Your task to perform on an android device: Go to internet settings Image 0: 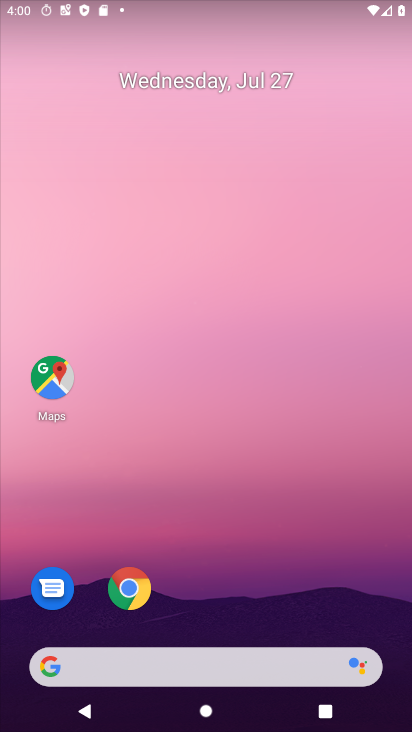
Step 0: press home button
Your task to perform on an android device: Go to internet settings Image 1: 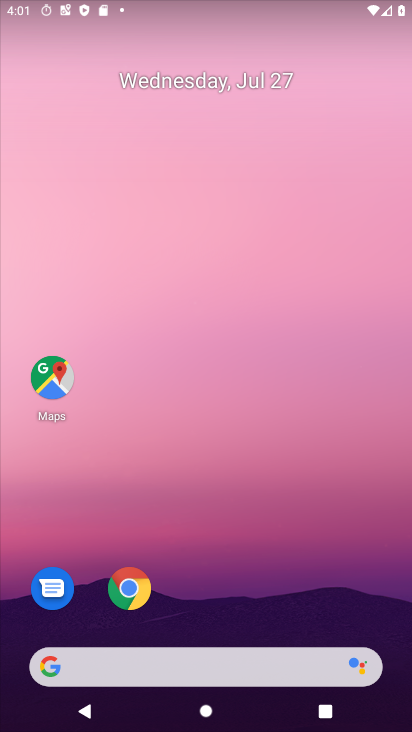
Step 1: drag from (311, 619) to (234, 8)
Your task to perform on an android device: Go to internet settings Image 2: 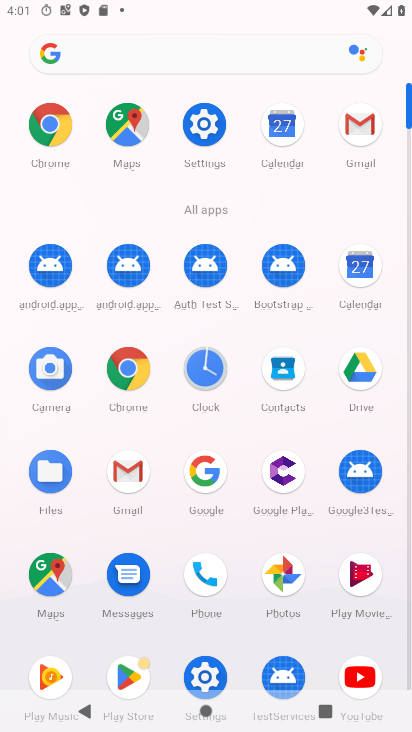
Step 2: click (206, 146)
Your task to perform on an android device: Go to internet settings Image 3: 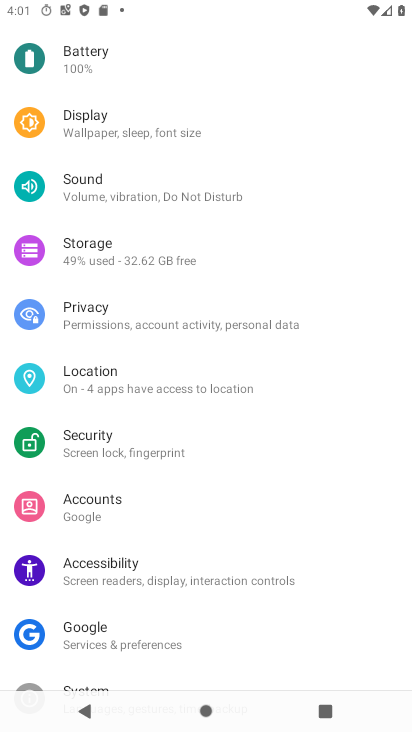
Step 3: drag from (233, 90) to (347, 431)
Your task to perform on an android device: Go to internet settings Image 4: 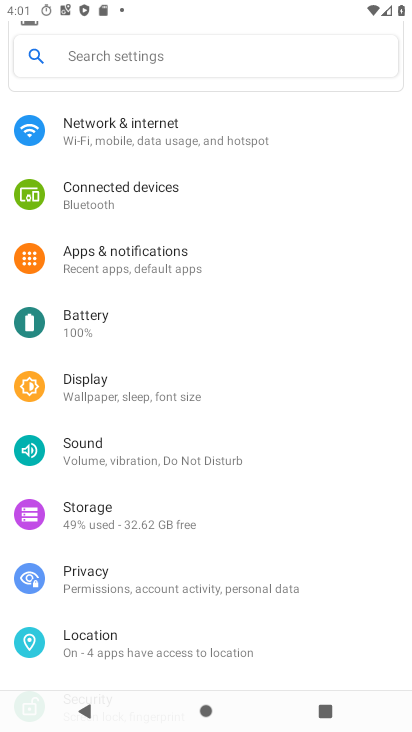
Step 4: click (101, 127)
Your task to perform on an android device: Go to internet settings Image 5: 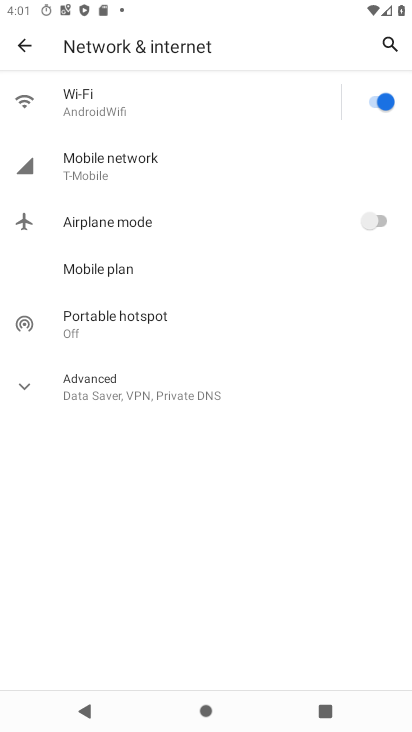
Step 5: task complete